Your task to perform on an android device: Go to Reddit Image 0: 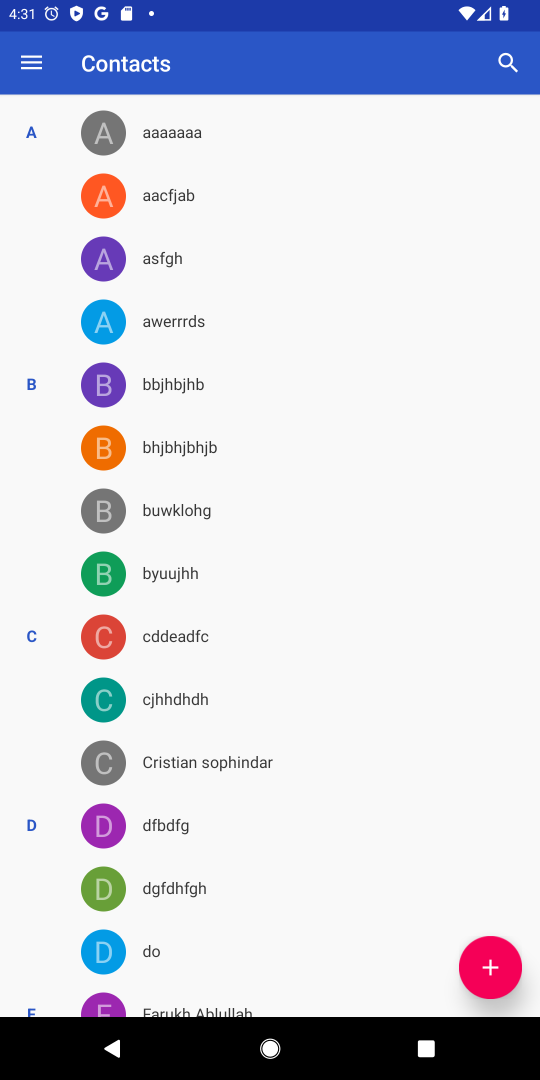
Step 0: press home button
Your task to perform on an android device: Go to Reddit Image 1: 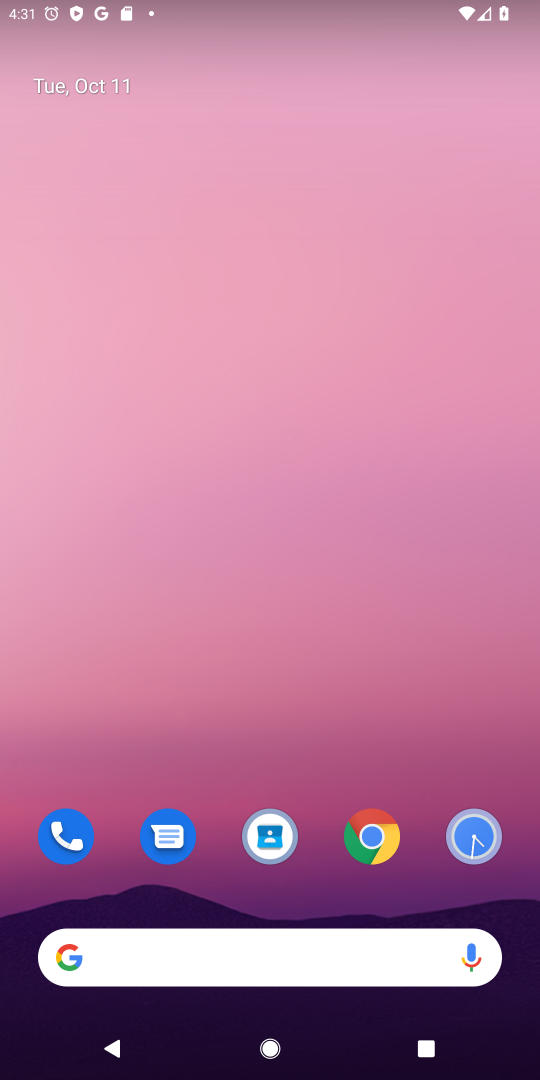
Step 1: click (144, 942)
Your task to perform on an android device: Go to Reddit Image 2: 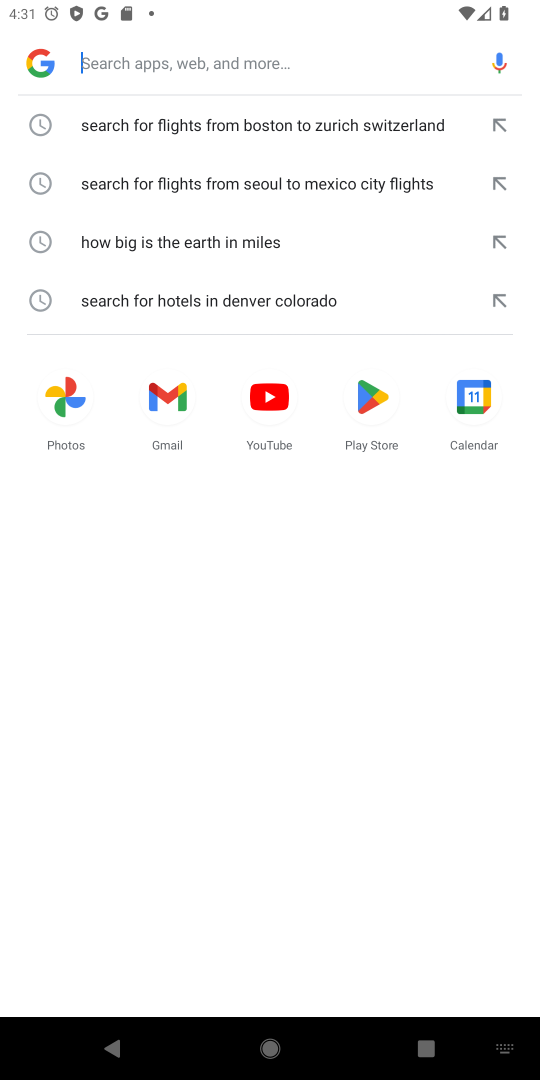
Step 2: type "Go to Reddit"
Your task to perform on an android device: Go to Reddit Image 3: 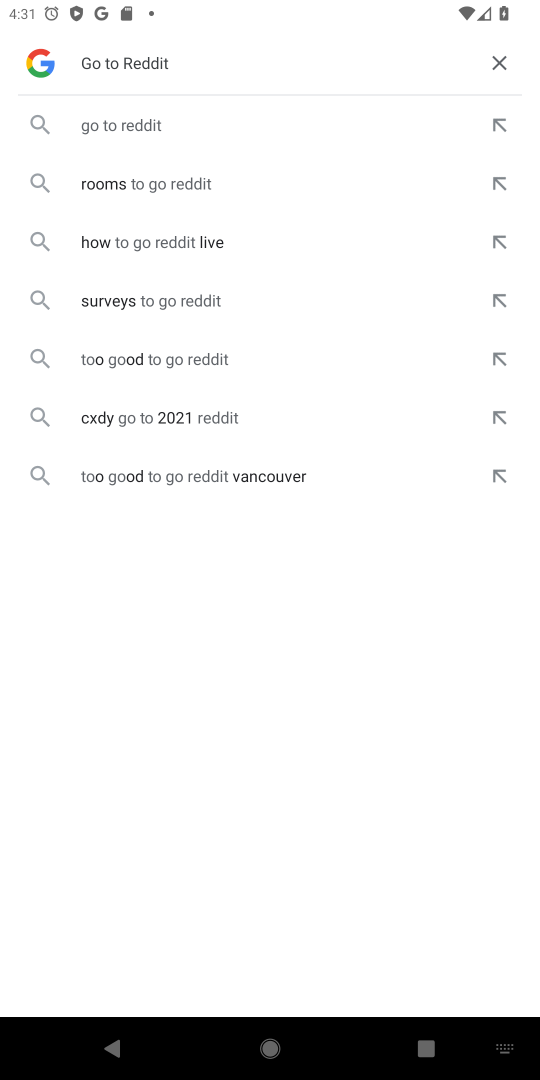
Step 3: click (205, 118)
Your task to perform on an android device: Go to Reddit Image 4: 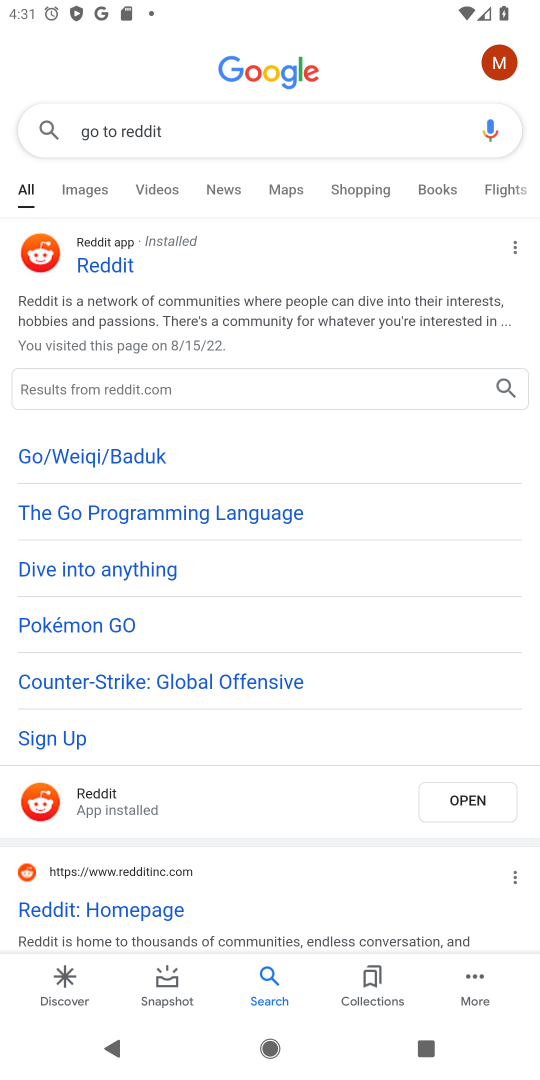
Step 4: click (121, 269)
Your task to perform on an android device: Go to Reddit Image 5: 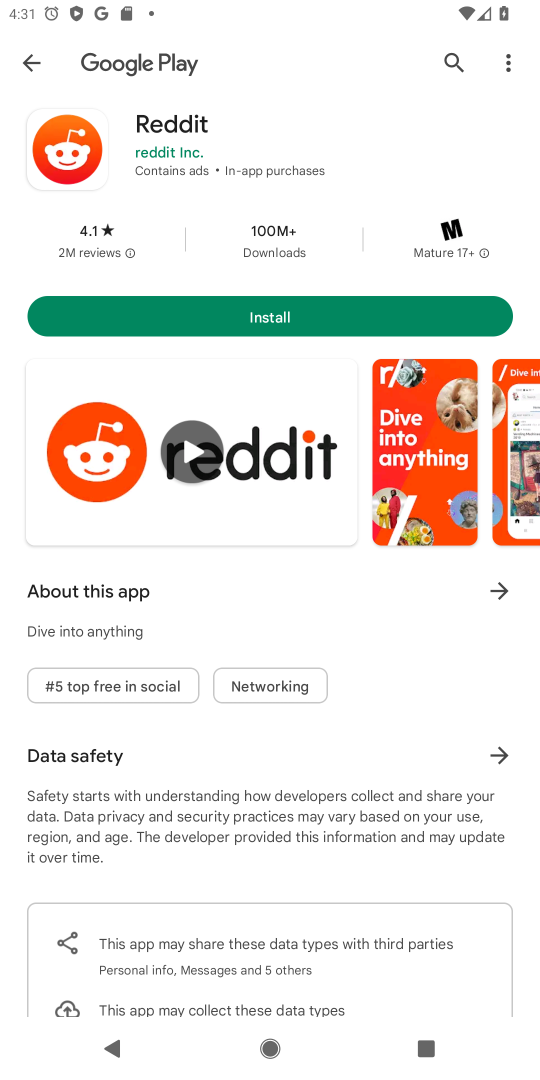
Step 5: task complete